Your task to perform on an android device: Go to Google Image 0: 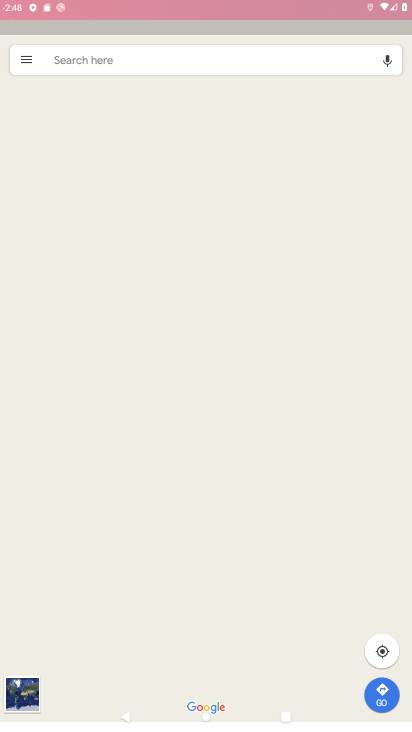
Step 0: press home button
Your task to perform on an android device: Go to Google Image 1: 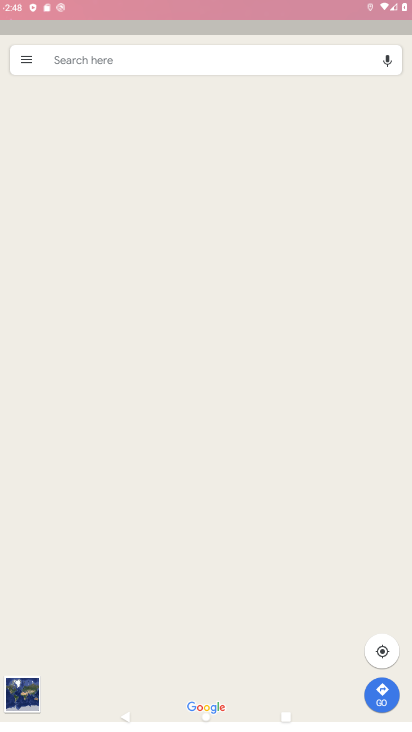
Step 1: click (216, 118)
Your task to perform on an android device: Go to Google Image 2: 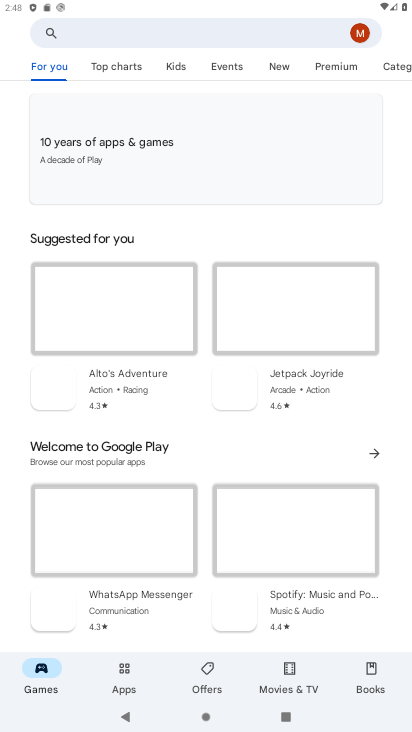
Step 2: press home button
Your task to perform on an android device: Go to Google Image 3: 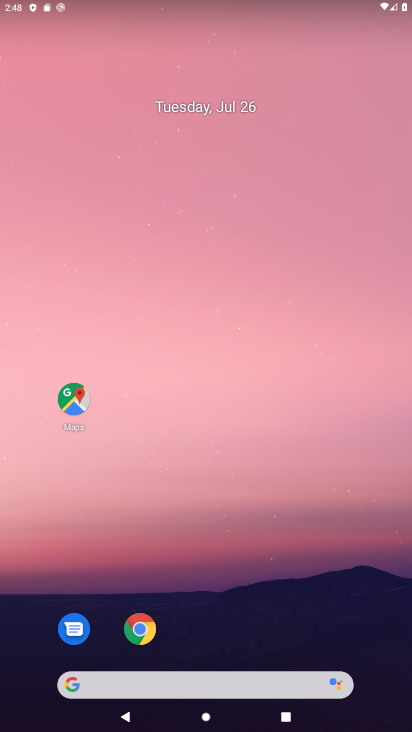
Step 3: drag from (229, 722) to (231, 115)
Your task to perform on an android device: Go to Google Image 4: 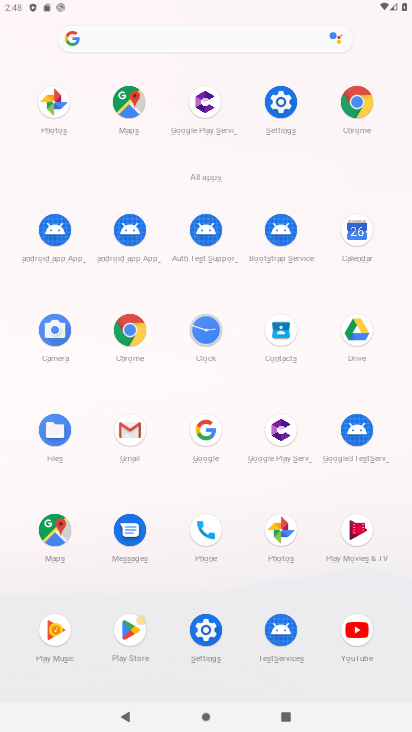
Step 4: click (208, 430)
Your task to perform on an android device: Go to Google Image 5: 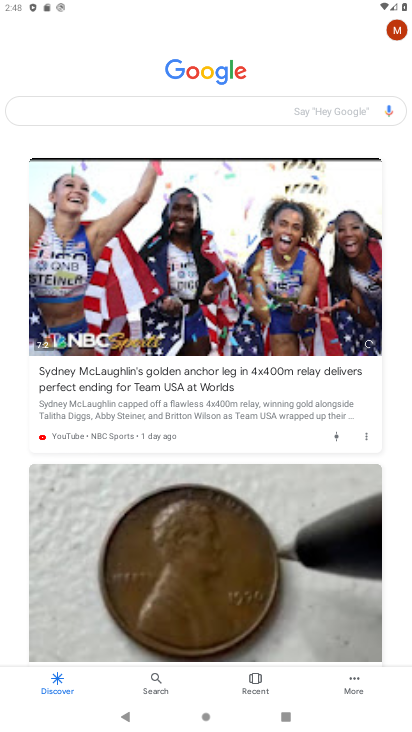
Step 5: task complete